Your task to perform on an android device: What's the weather? Image 0: 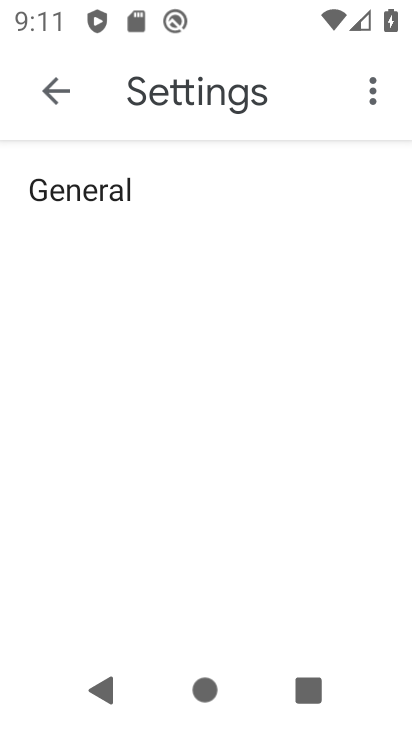
Step 0: press home button
Your task to perform on an android device: What's the weather? Image 1: 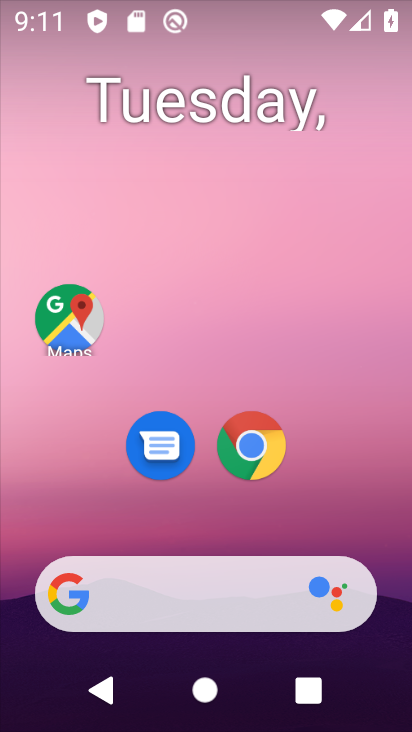
Step 1: drag from (0, 412) to (402, 370)
Your task to perform on an android device: What's the weather? Image 2: 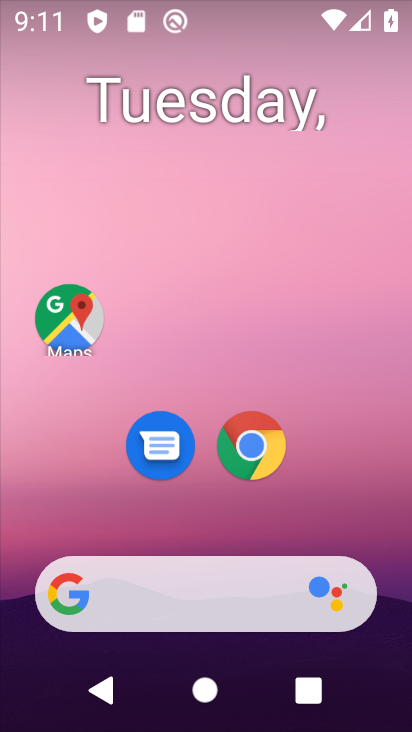
Step 2: drag from (3, 413) to (411, 351)
Your task to perform on an android device: What's the weather? Image 3: 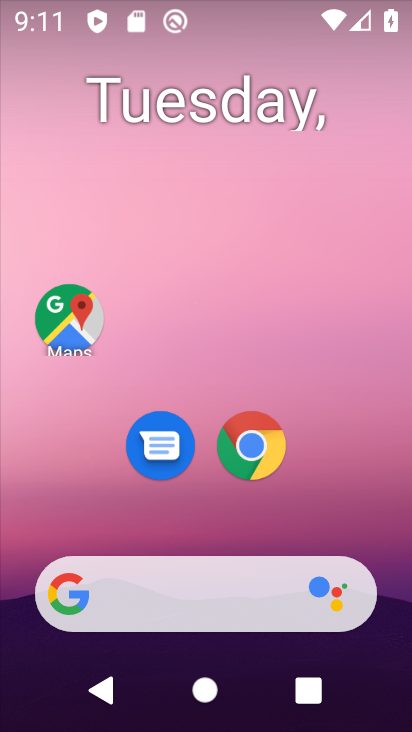
Step 3: click (219, 587)
Your task to perform on an android device: What's the weather? Image 4: 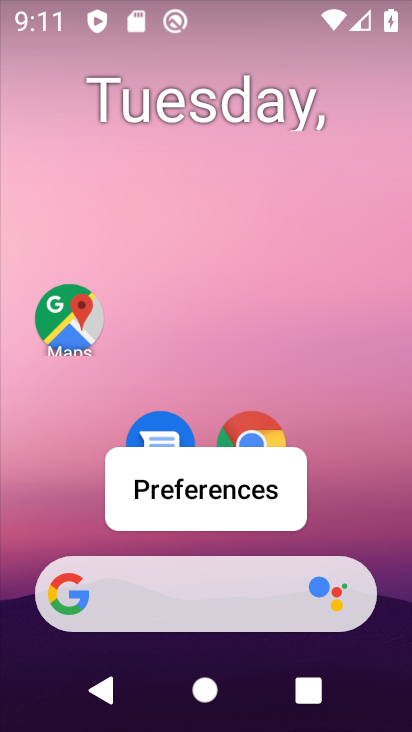
Step 4: click (221, 586)
Your task to perform on an android device: What's the weather? Image 5: 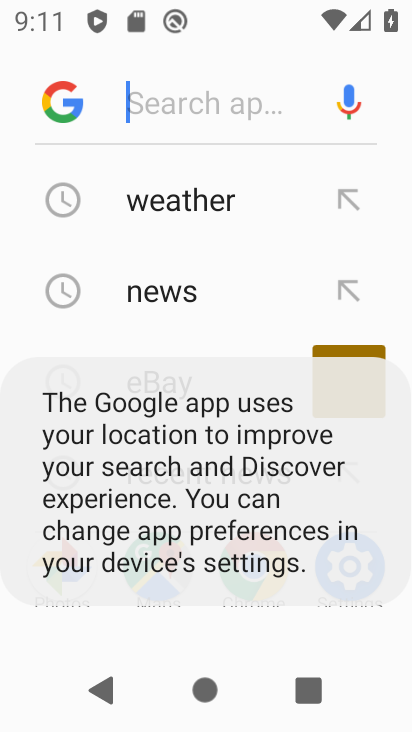
Step 5: click (211, 589)
Your task to perform on an android device: What's the weather? Image 6: 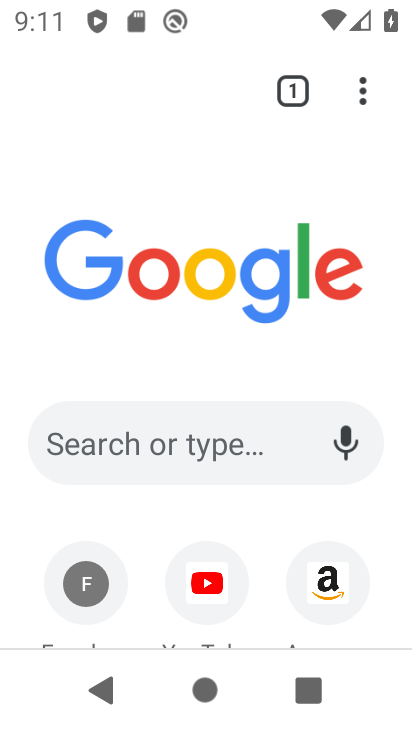
Step 6: type "weather"
Your task to perform on an android device: What's the weather? Image 7: 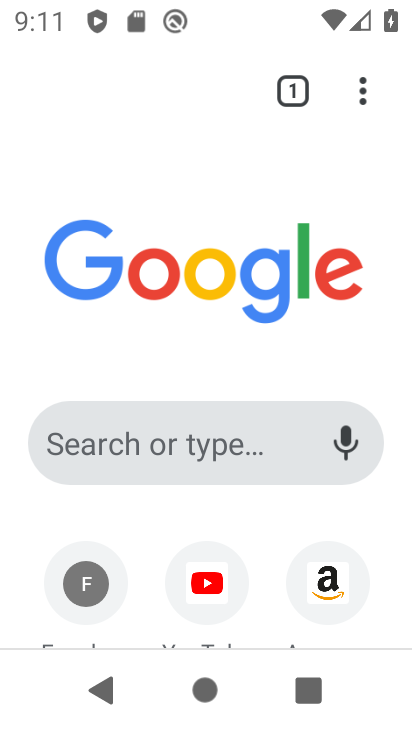
Step 7: click (245, 457)
Your task to perform on an android device: What's the weather? Image 8: 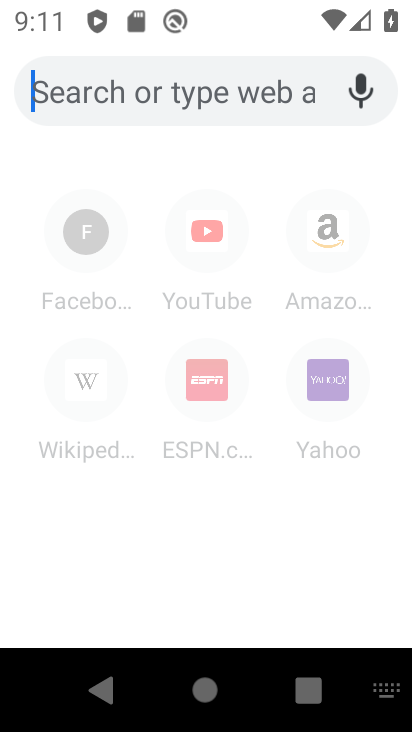
Step 8: type "Weather"
Your task to perform on an android device: What's the weather? Image 9: 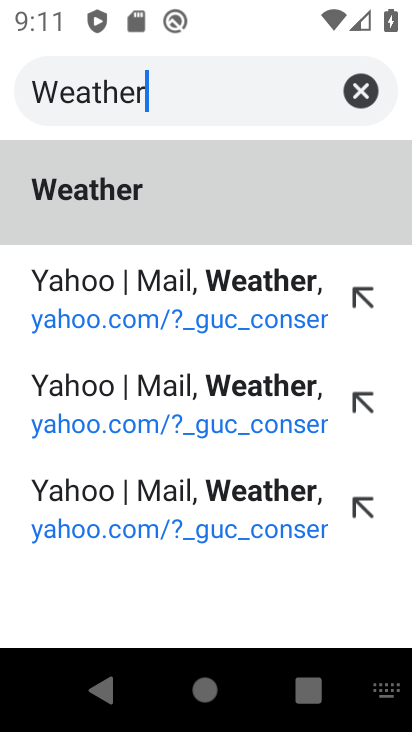
Step 9: click (148, 218)
Your task to perform on an android device: What's the weather? Image 10: 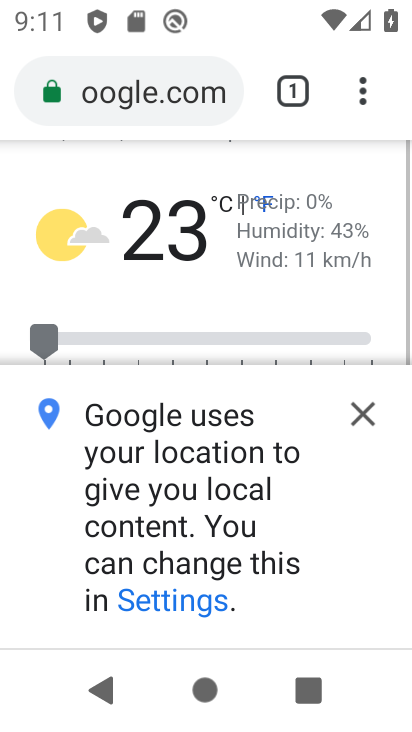
Step 10: click (362, 405)
Your task to perform on an android device: What's the weather? Image 11: 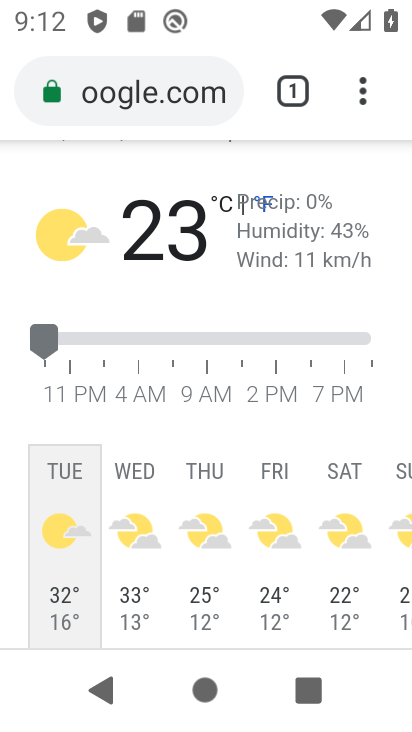
Step 11: task complete